Your task to perform on an android device: Open calendar and show me the fourth week of next month Image 0: 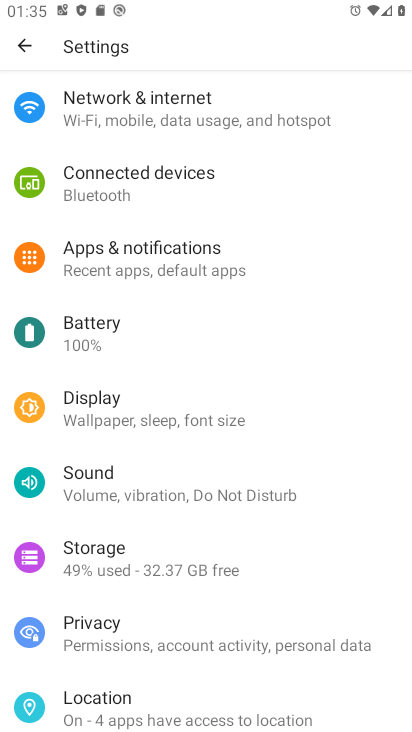
Step 0: press home button
Your task to perform on an android device: Open calendar and show me the fourth week of next month Image 1: 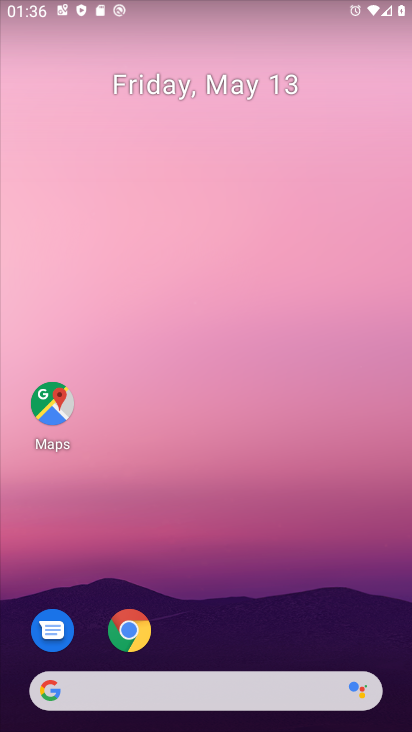
Step 1: drag from (159, 724) to (306, 286)
Your task to perform on an android device: Open calendar and show me the fourth week of next month Image 2: 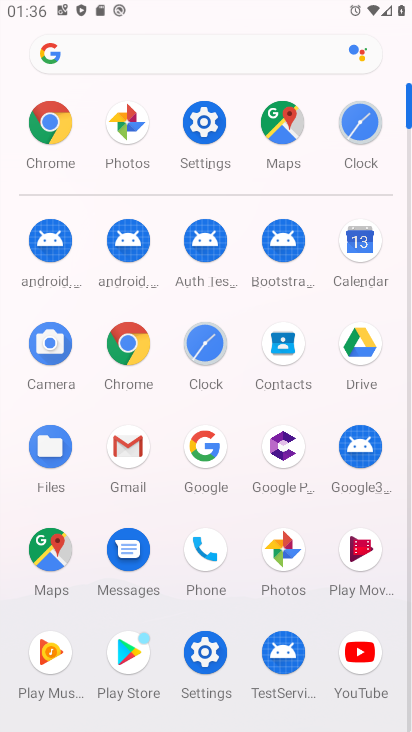
Step 2: click (356, 253)
Your task to perform on an android device: Open calendar and show me the fourth week of next month Image 3: 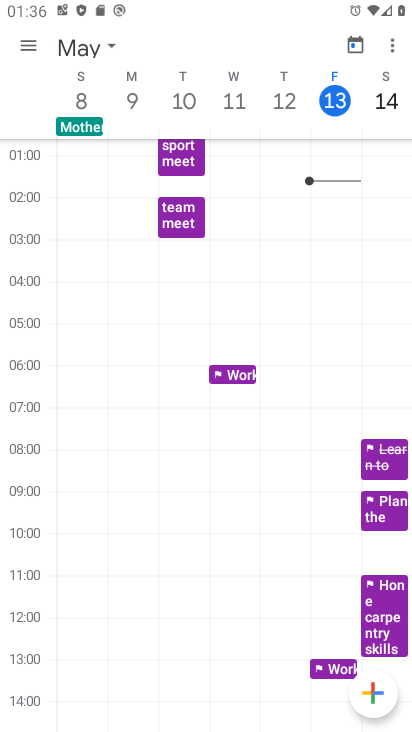
Step 3: click (35, 53)
Your task to perform on an android device: Open calendar and show me the fourth week of next month Image 4: 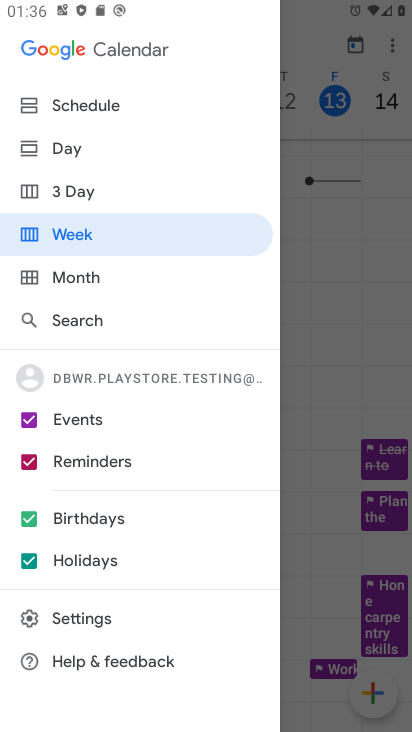
Step 4: click (89, 284)
Your task to perform on an android device: Open calendar and show me the fourth week of next month Image 5: 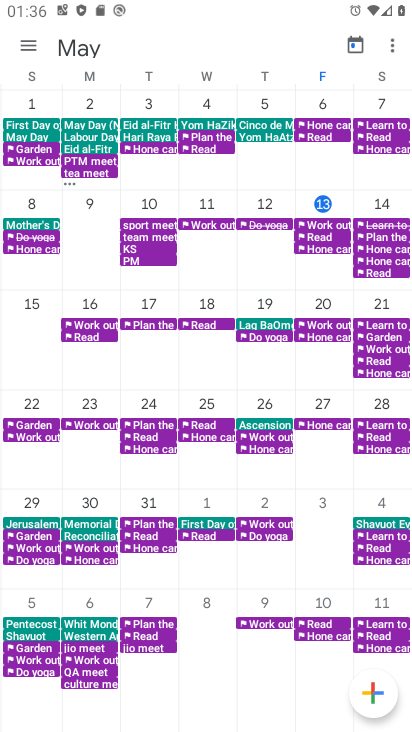
Step 5: drag from (347, 308) to (7, 314)
Your task to perform on an android device: Open calendar and show me the fourth week of next month Image 6: 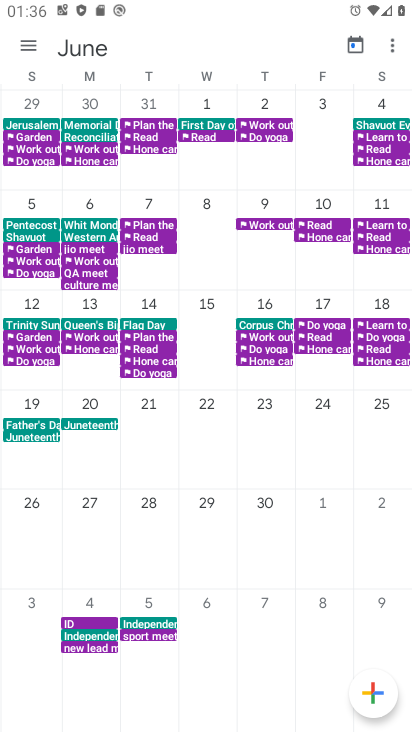
Step 6: click (81, 406)
Your task to perform on an android device: Open calendar and show me the fourth week of next month Image 7: 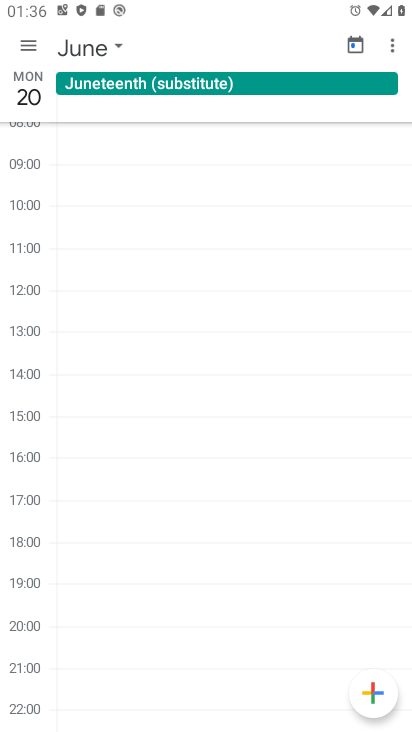
Step 7: task complete